Your task to perform on an android device: Go to Google maps Image 0: 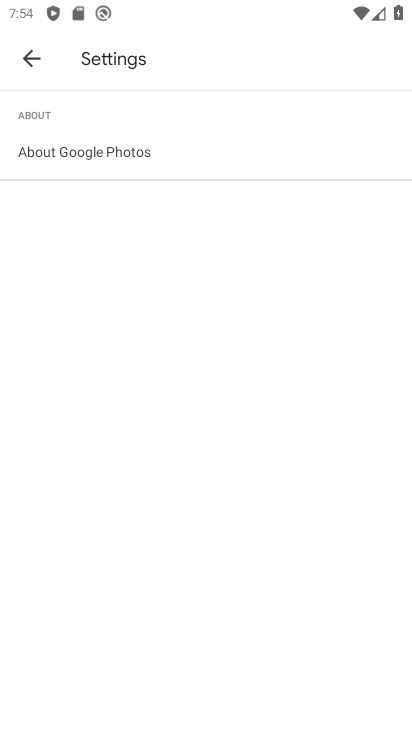
Step 0: press home button
Your task to perform on an android device: Go to Google maps Image 1: 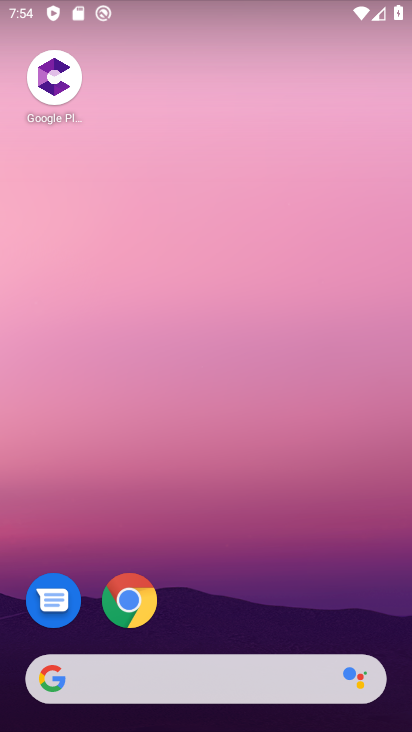
Step 1: drag from (366, 593) to (368, 115)
Your task to perform on an android device: Go to Google maps Image 2: 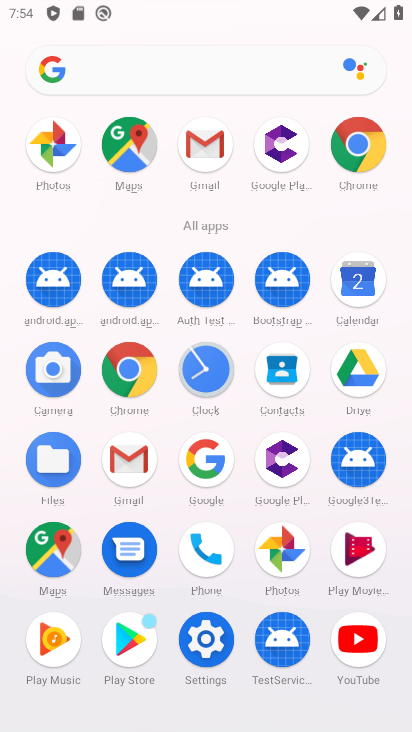
Step 2: click (62, 561)
Your task to perform on an android device: Go to Google maps Image 3: 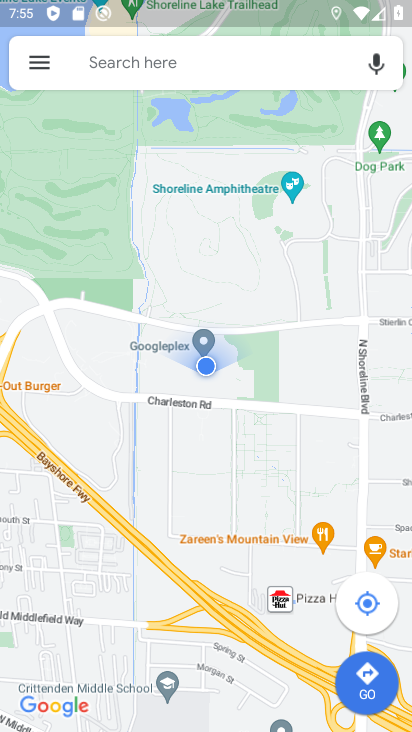
Step 3: task complete